Your task to perform on an android device: turn smart compose on in the gmail app Image 0: 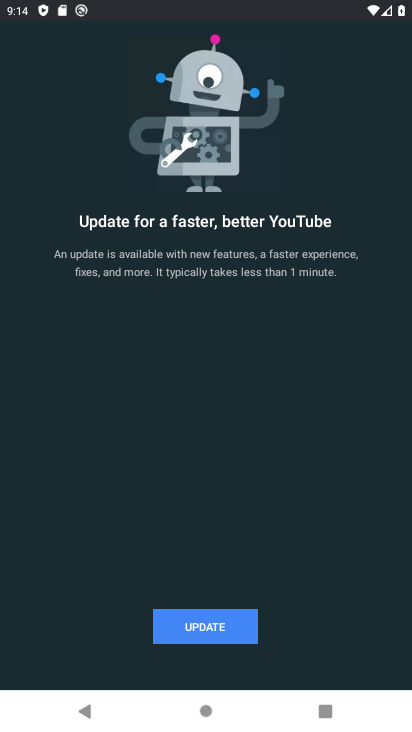
Step 0: press back button
Your task to perform on an android device: turn smart compose on in the gmail app Image 1: 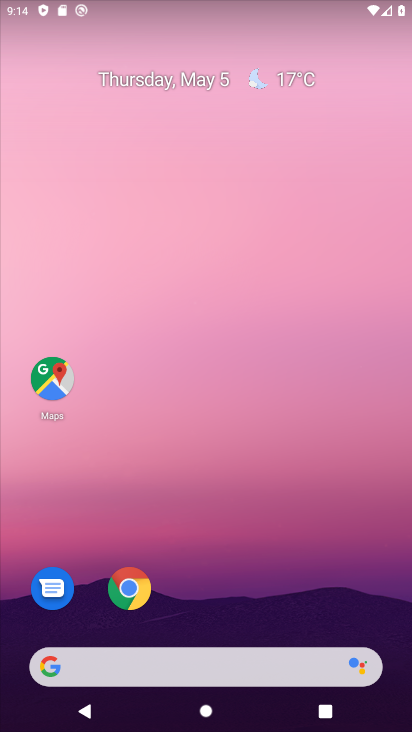
Step 1: drag from (202, 550) to (264, 244)
Your task to perform on an android device: turn smart compose on in the gmail app Image 2: 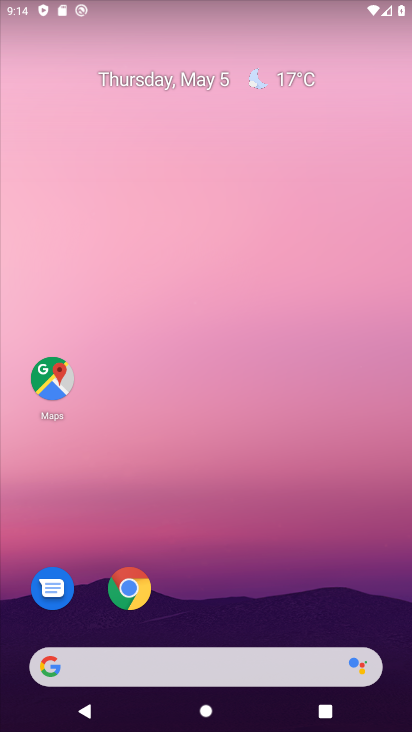
Step 2: drag from (213, 573) to (298, 196)
Your task to perform on an android device: turn smart compose on in the gmail app Image 3: 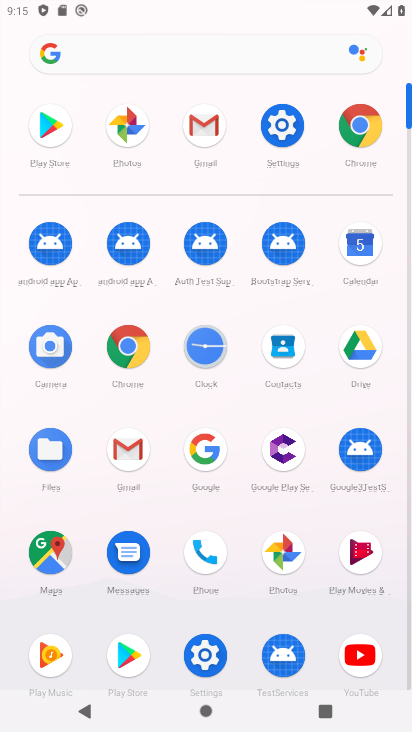
Step 3: click (128, 441)
Your task to perform on an android device: turn smart compose on in the gmail app Image 4: 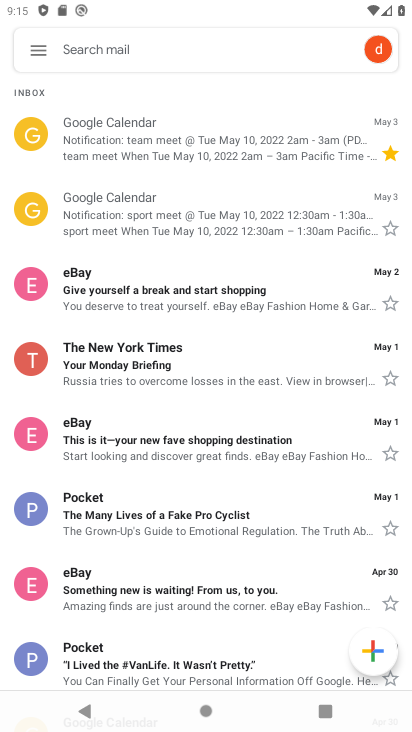
Step 4: click (37, 53)
Your task to perform on an android device: turn smart compose on in the gmail app Image 5: 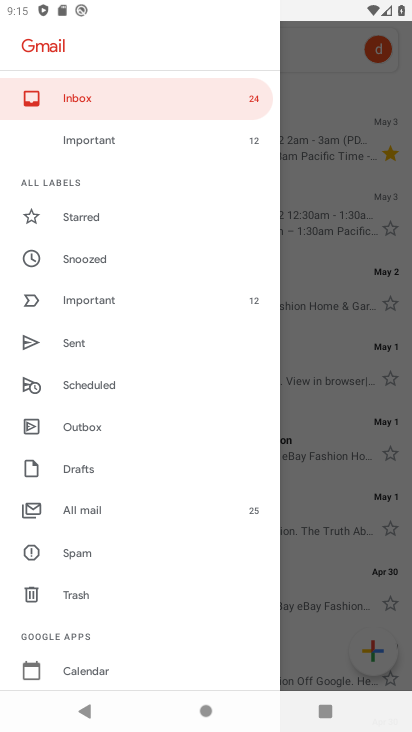
Step 5: drag from (135, 504) to (159, 326)
Your task to perform on an android device: turn smart compose on in the gmail app Image 6: 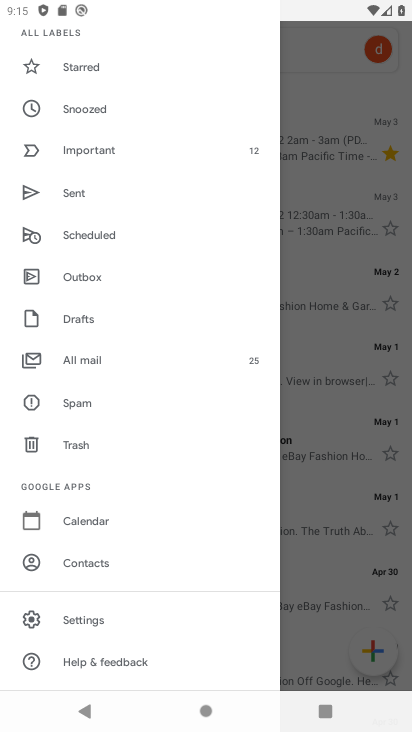
Step 6: click (86, 617)
Your task to perform on an android device: turn smart compose on in the gmail app Image 7: 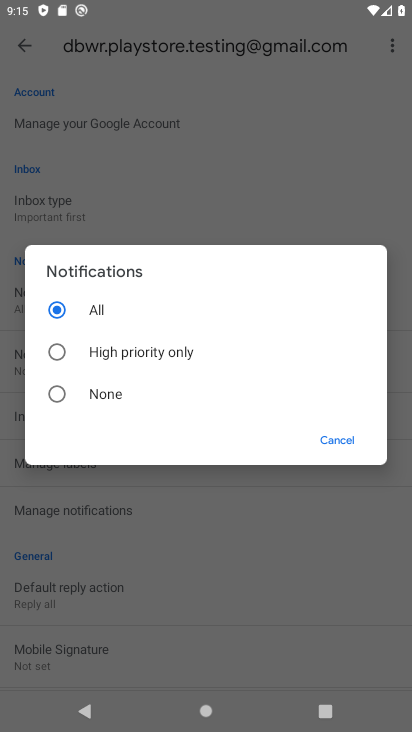
Step 7: click (335, 434)
Your task to perform on an android device: turn smart compose on in the gmail app Image 8: 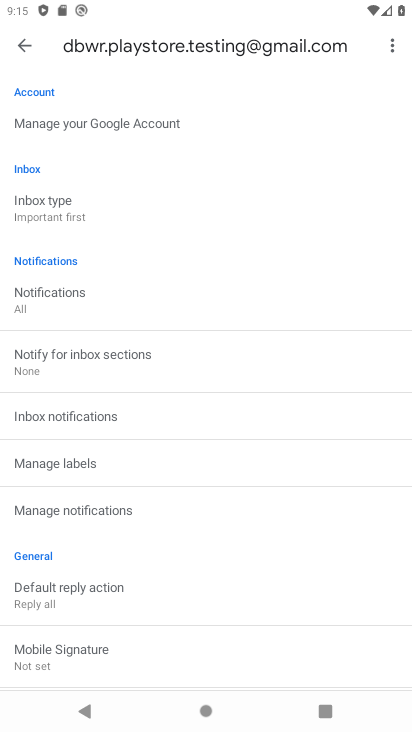
Step 8: drag from (144, 551) to (242, 260)
Your task to perform on an android device: turn smart compose on in the gmail app Image 9: 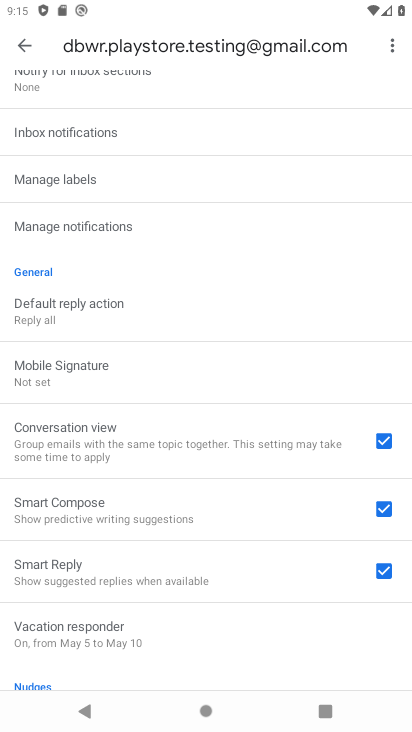
Step 9: click (178, 511)
Your task to perform on an android device: turn smart compose on in the gmail app Image 10: 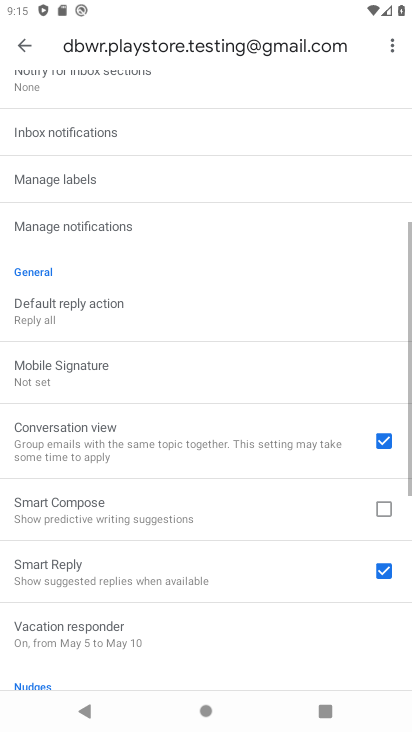
Step 10: click (179, 510)
Your task to perform on an android device: turn smart compose on in the gmail app Image 11: 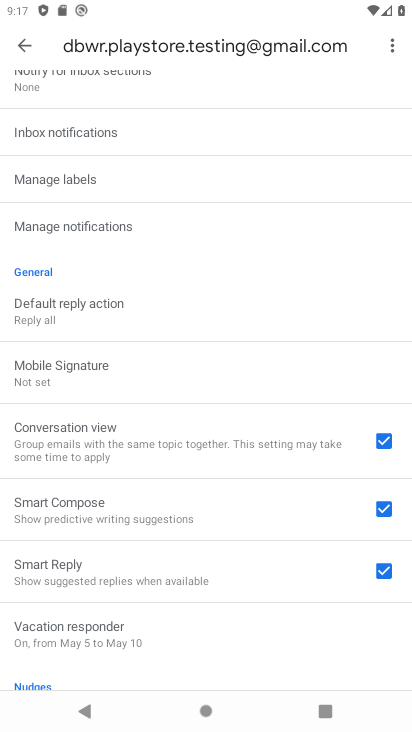
Step 11: task complete